Your task to perform on an android device: Open network settings Image 0: 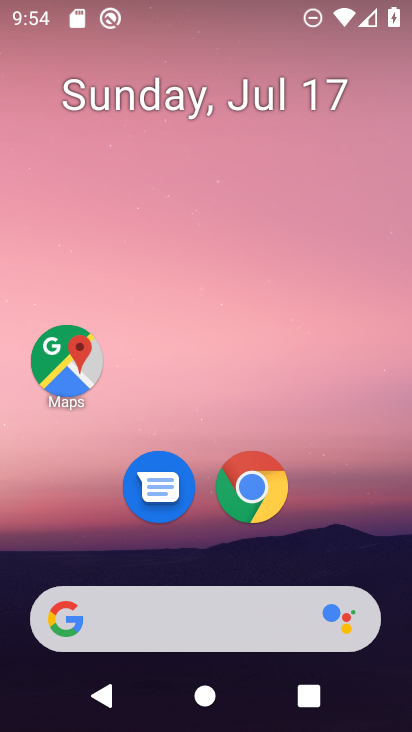
Step 0: press home button
Your task to perform on an android device: Open network settings Image 1: 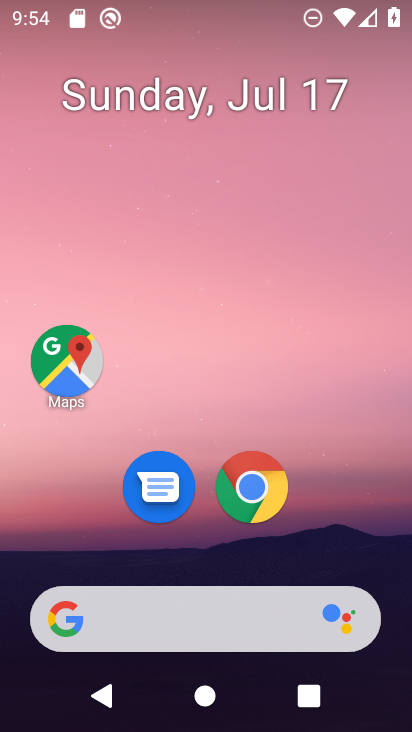
Step 1: drag from (325, 562) to (291, 0)
Your task to perform on an android device: Open network settings Image 2: 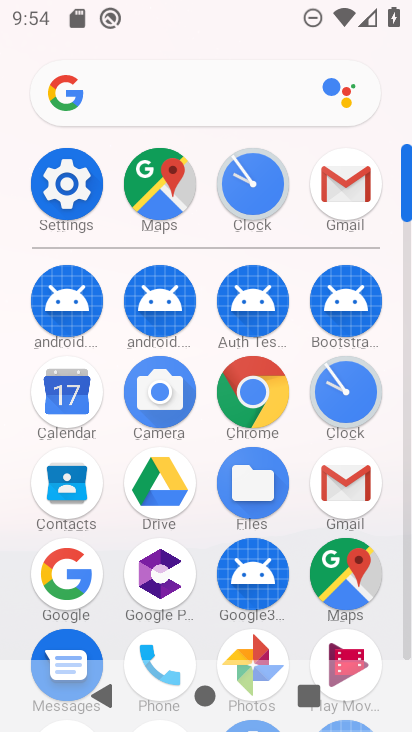
Step 2: click (64, 180)
Your task to perform on an android device: Open network settings Image 3: 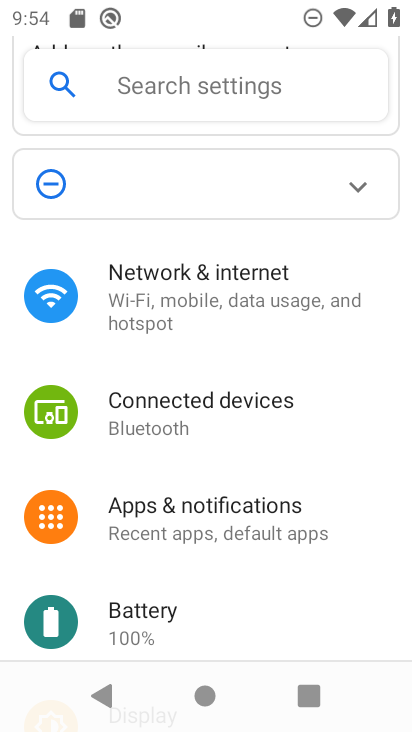
Step 3: click (208, 295)
Your task to perform on an android device: Open network settings Image 4: 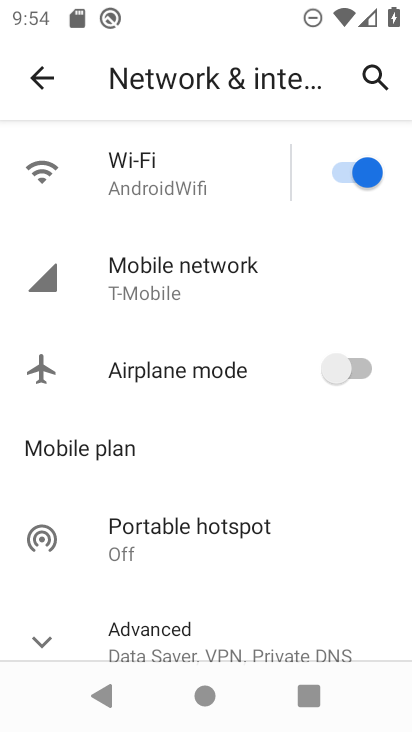
Step 4: task complete